Your task to perform on an android device: Go to ESPN.com Image 0: 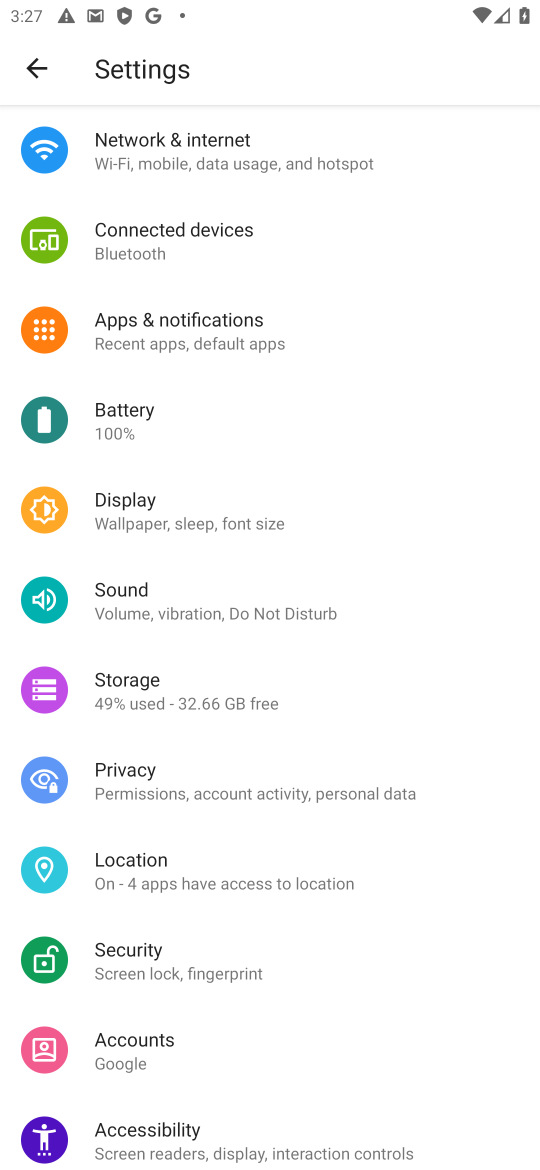
Step 0: press back button
Your task to perform on an android device: Go to ESPN.com Image 1: 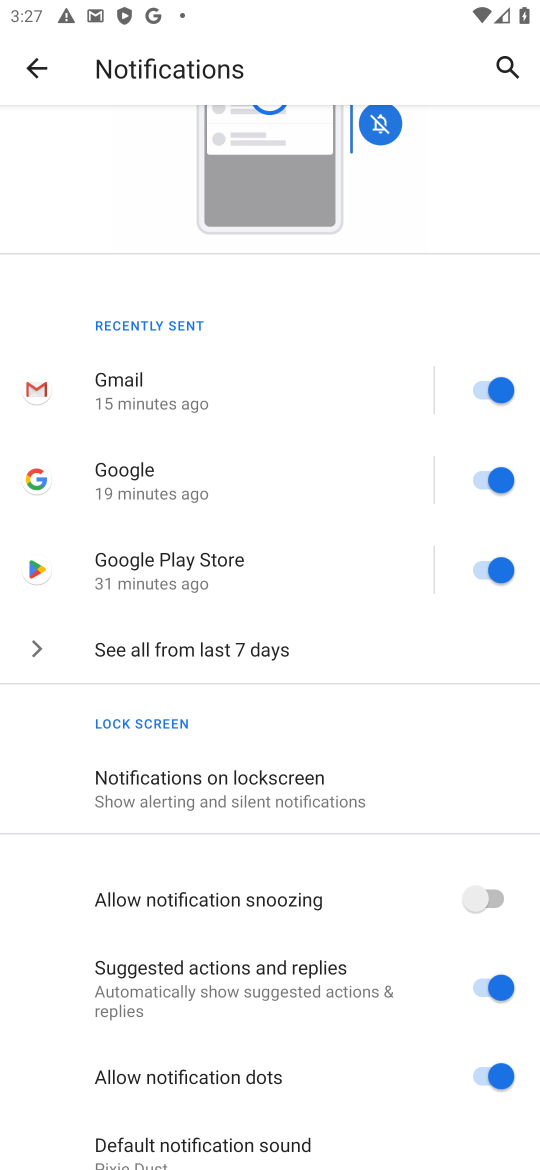
Step 1: press home button
Your task to perform on an android device: Go to ESPN.com Image 2: 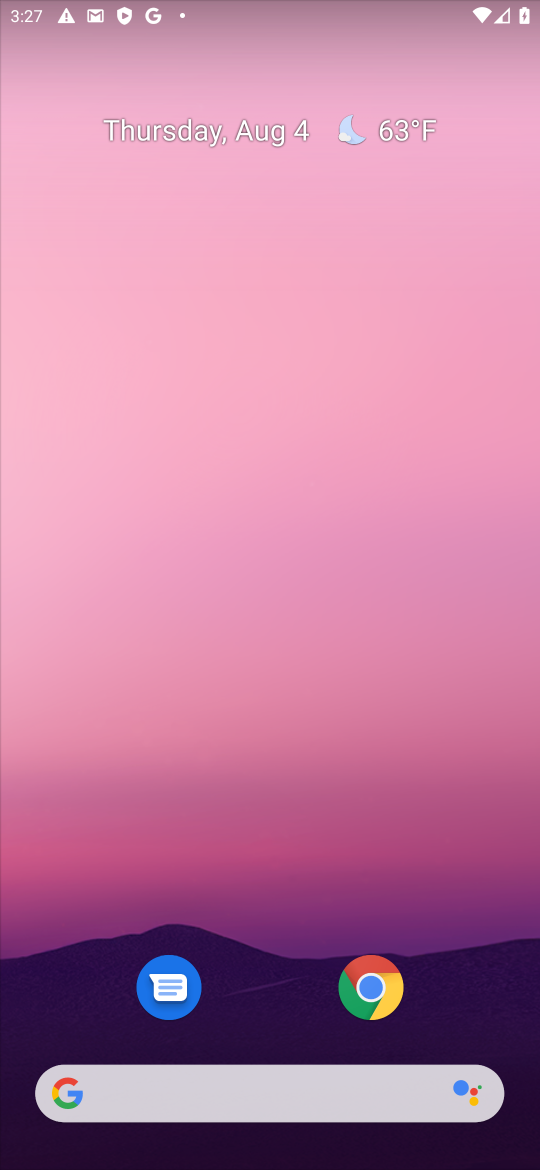
Step 2: click (367, 990)
Your task to perform on an android device: Go to ESPN.com Image 3: 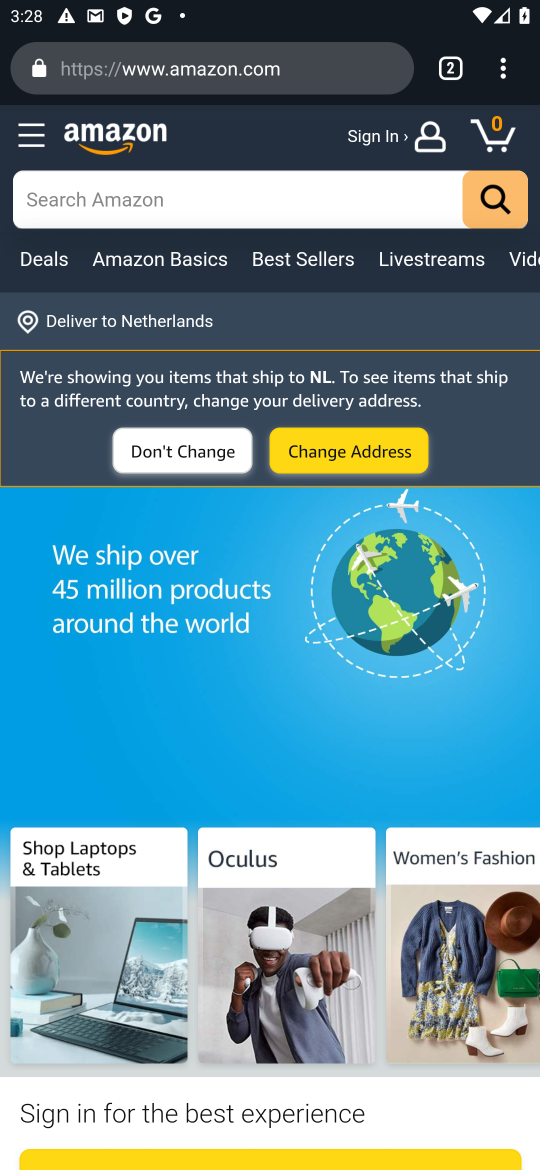
Step 3: press back button
Your task to perform on an android device: Go to ESPN.com Image 4: 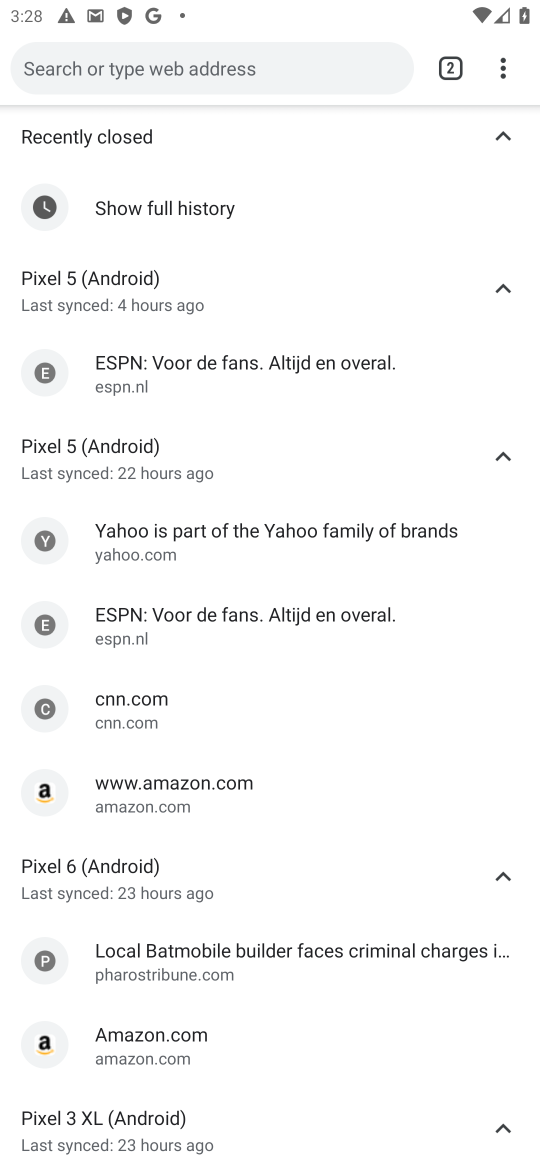
Step 4: click (219, 63)
Your task to perform on an android device: Go to ESPN.com Image 5: 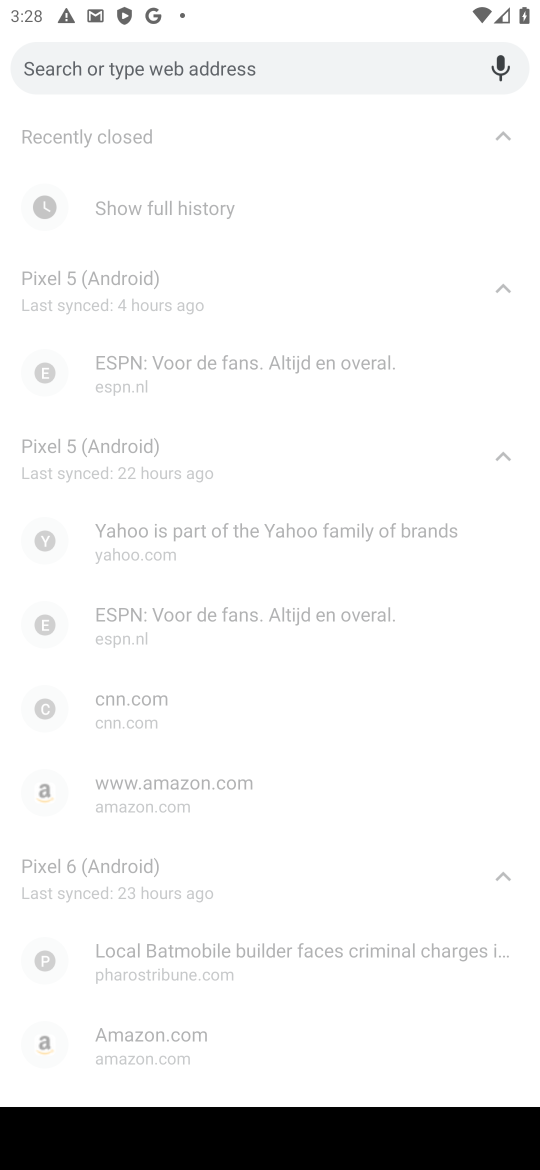
Step 5: type "www.espn.com"
Your task to perform on an android device: Go to ESPN.com Image 6: 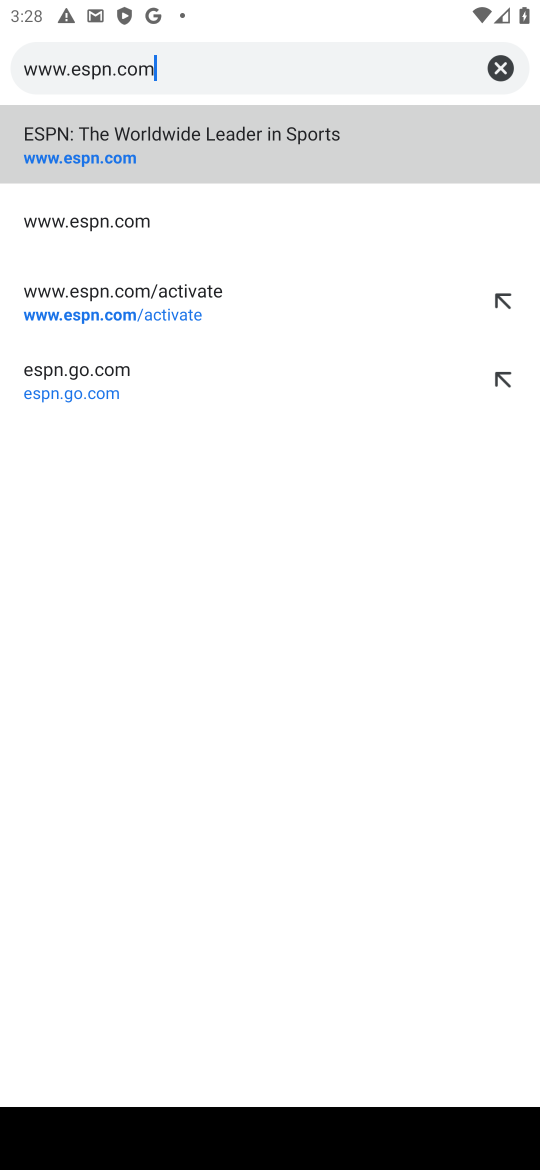
Step 6: click (98, 156)
Your task to perform on an android device: Go to ESPN.com Image 7: 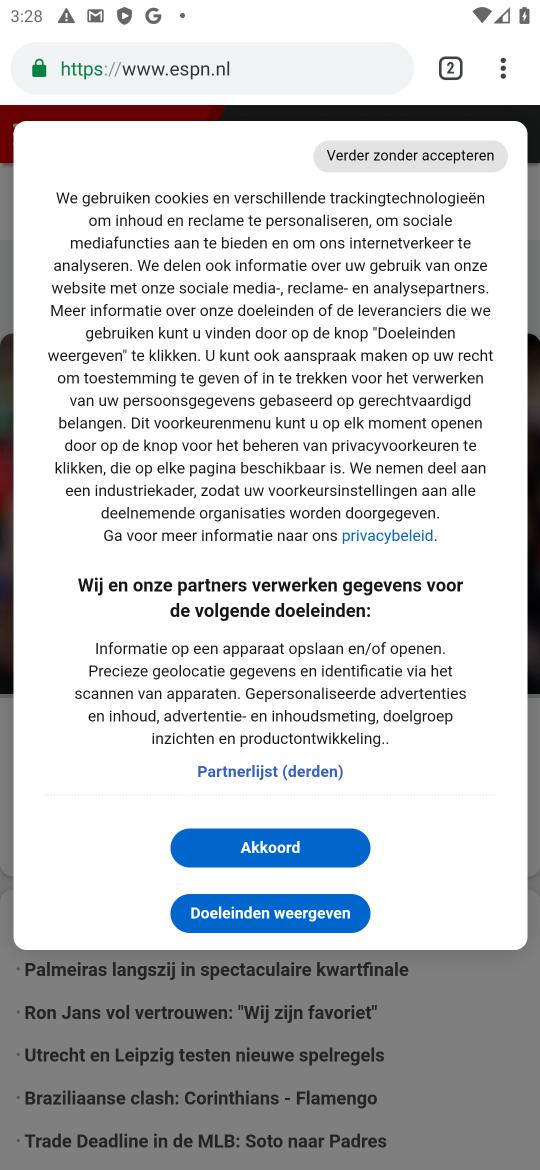
Step 7: task complete